Your task to perform on an android device: Open notification settings Image 0: 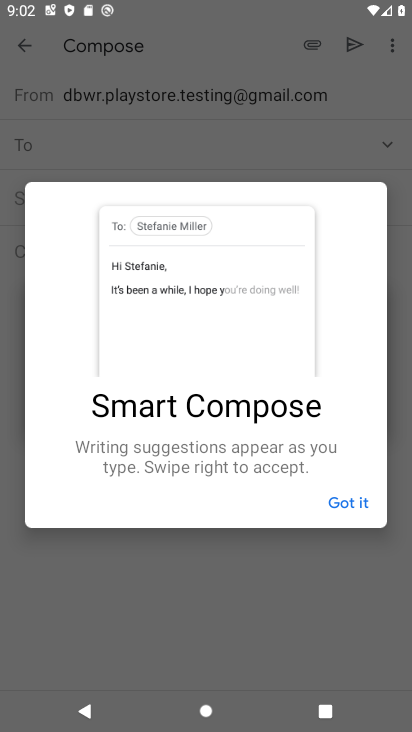
Step 0: press home button
Your task to perform on an android device: Open notification settings Image 1: 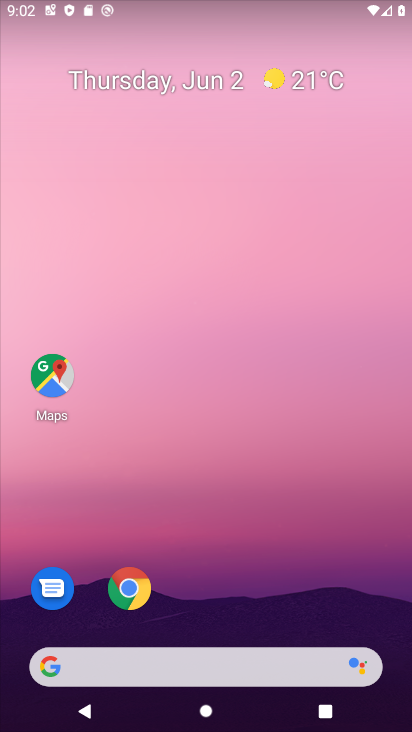
Step 1: drag from (230, 653) to (190, 31)
Your task to perform on an android device: Open notification settings Image 2: 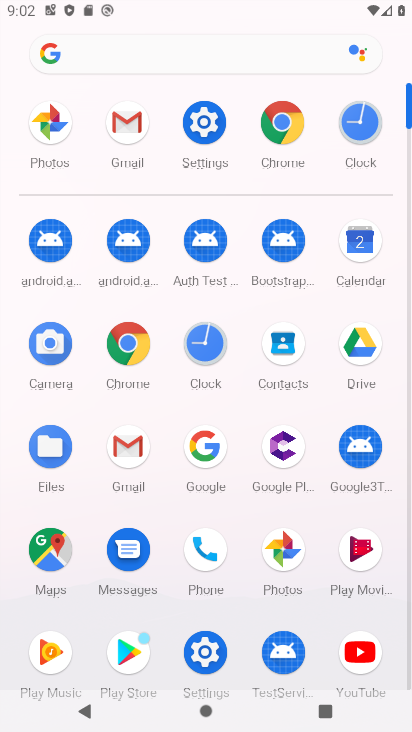
Step 2: click (202, 135)
Your task to perform on an android device: Open notification settings Image 3: 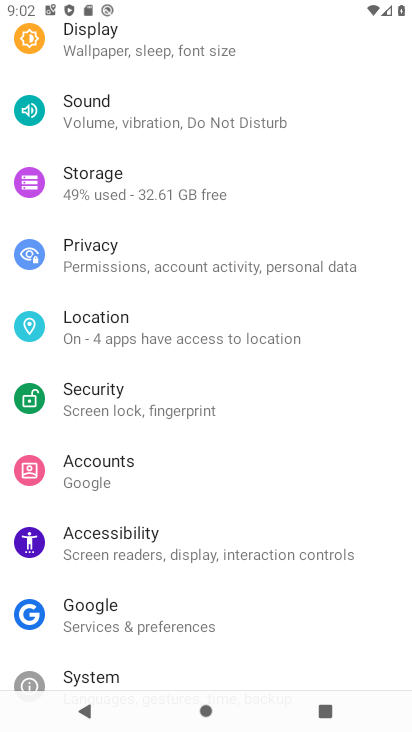
Step 3: drag from (148, 119) to (144, 644)
Your task to perform on an android device: Open notification settings Image 4: 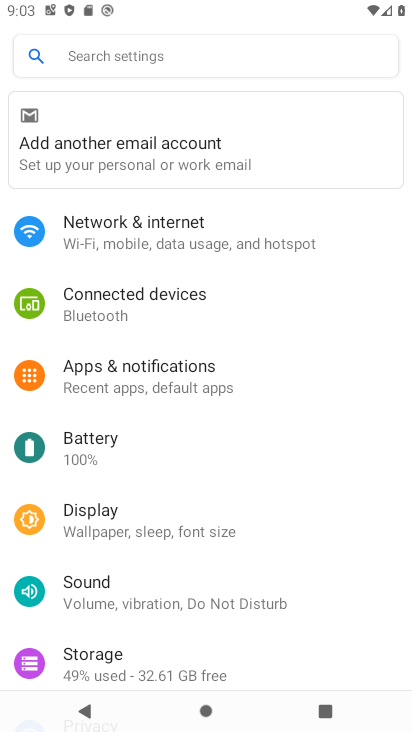
Step 4: click (128, 385)
Your task to perform on an android device: Open notification settings Image 5: 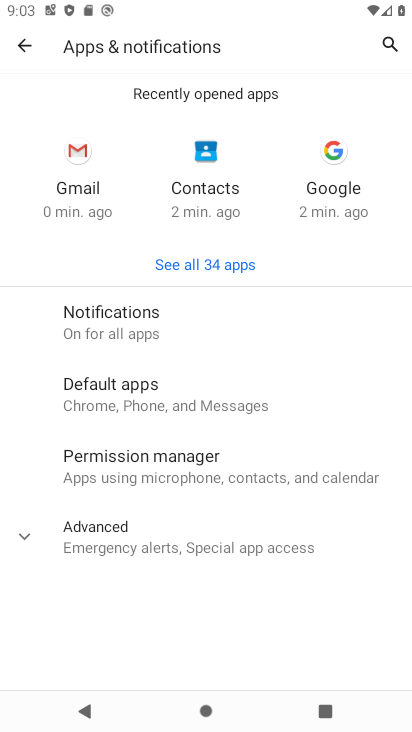
Step 5: task complete